Your task to perform on an android device: turn on data saver in the chrome app Image 0: 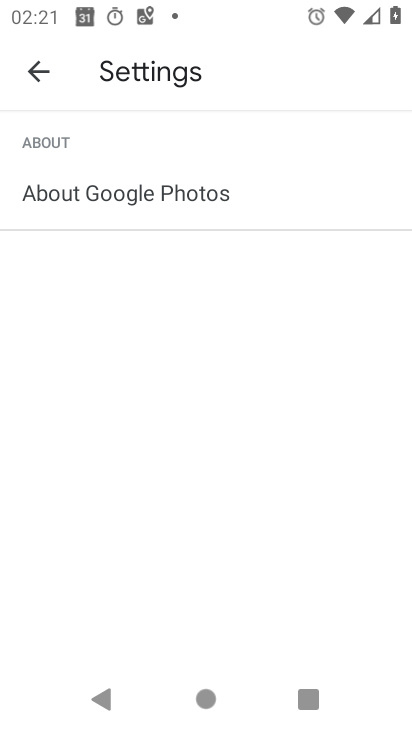
Step 0: press home button
Your task to perform on an android device: turn on data saver in the chrome app Image 1: 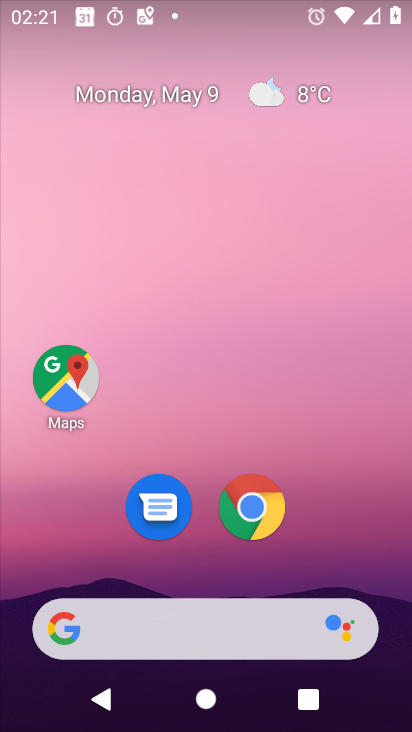
Step 1: click (249, 508)
Your task to perform on an android device: turn on data saver in the chrome app Image 2: 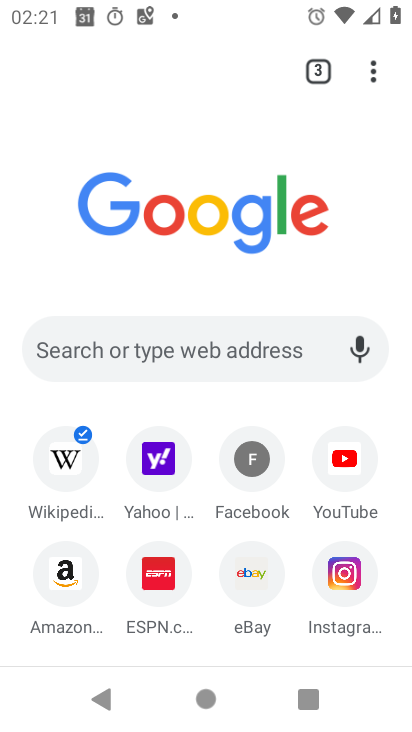
Step 2: click (374, 78)
Your task to perform on an android device: turn on data saver in the chrome app Image 3: 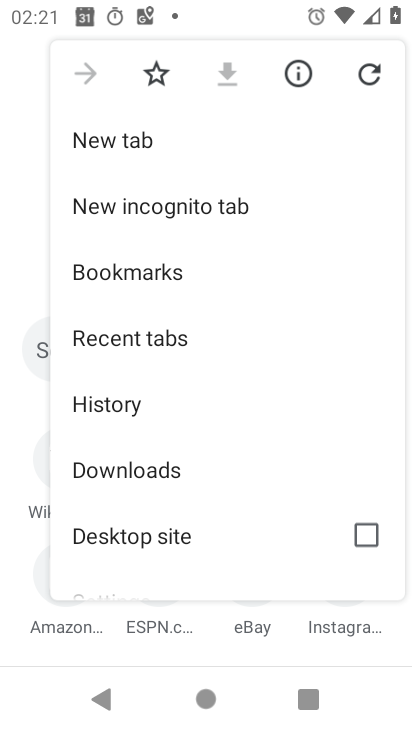
Step 3: drag from (150, 558) to (147, 219)
Your task to perform on an android device: turn on data saver in the chrome app Image 4: 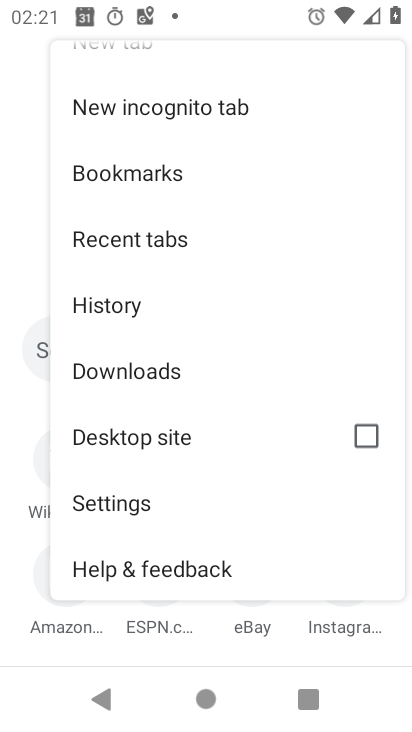
Step 4: click (129, 495)
Your task to perform on an android device: turn on data saver in the chrome app Image 5: 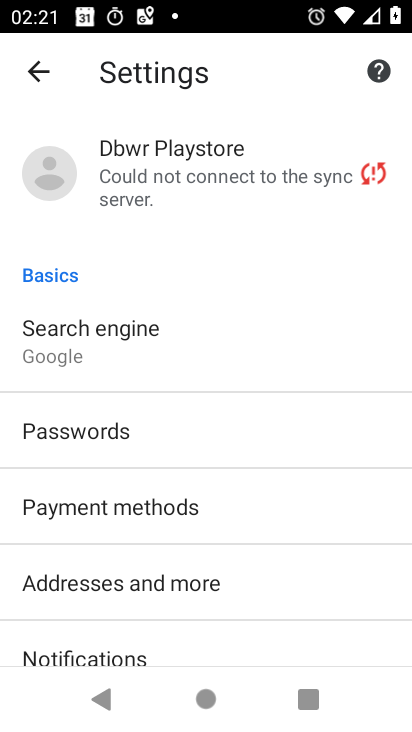
Step 5: drag from (166, 654) to (153, 254)
Your task to perform on an android device: turn on data saver in the chrome app Image 6: 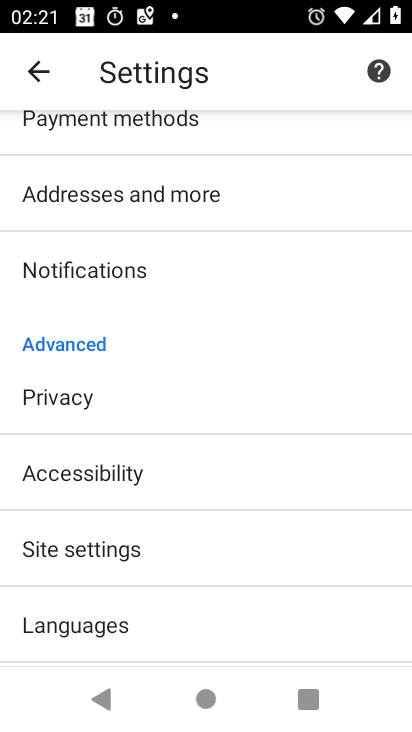
Step 6: drag from (139, 603) to (144, 333)
Your task to perform on an android device: turn on data saver in the chrome app Image 7: 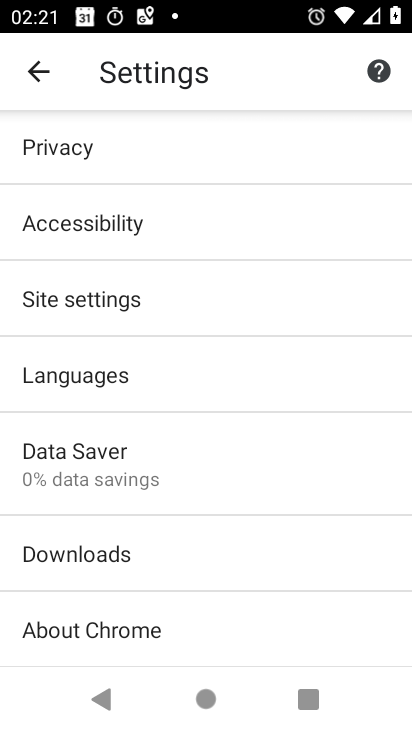
Step 7: click (94, 455)
Your task to perform on an android device: turn on data saver in the chrome app Image 8: 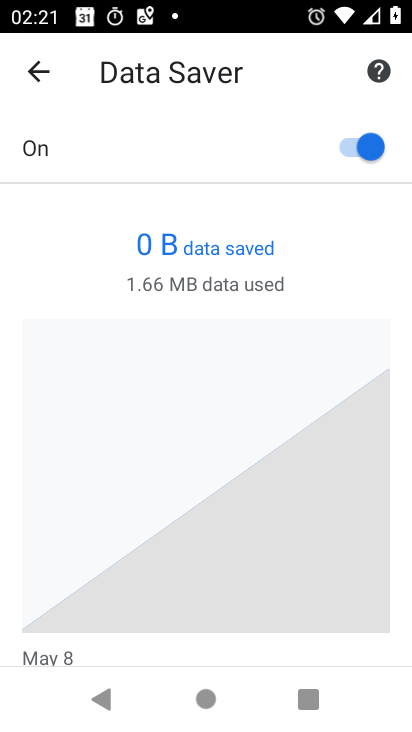
Step 8: task complete